Your task to perform on an android device: Open Google Image 0: 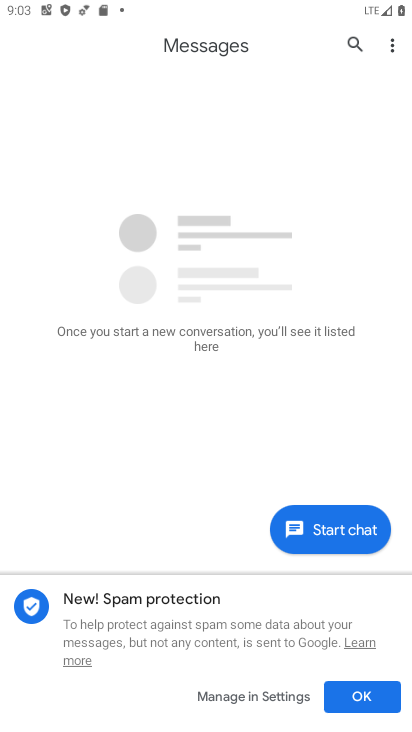
Step 0: press home button
Your task to perform on an android device: Open Google Image 1: 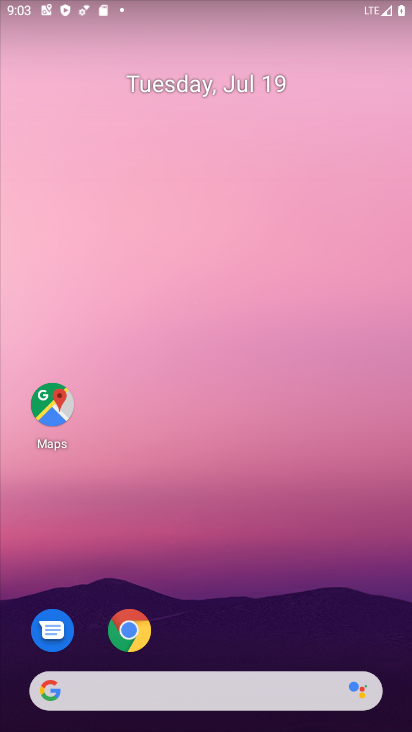
Step 1: drag from (213, 631) to (200, 117)
Your task to perform on an android device: Open Google Image 2: 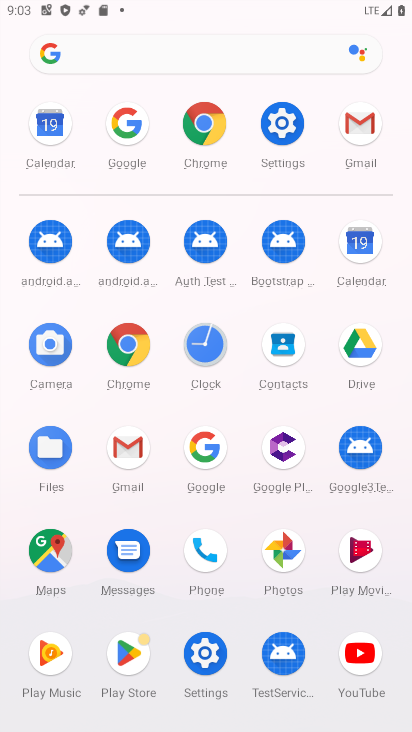
Step 2: click (124, 118)
Your task to perform on an android device: Open Google Image 3: 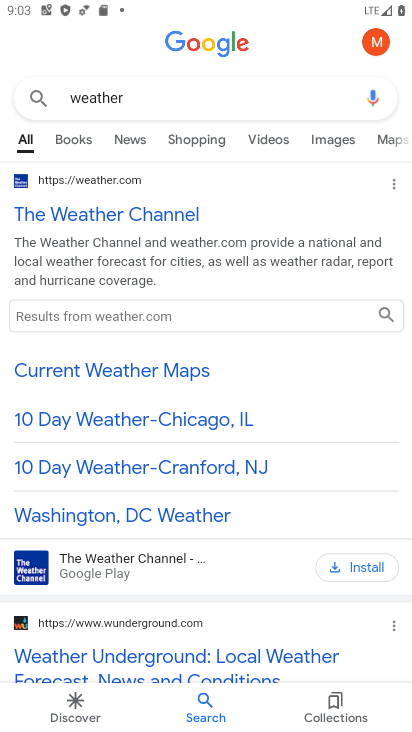
Step 3: task complete